Your task to perform on an android device: Open wifi settings Image 0: 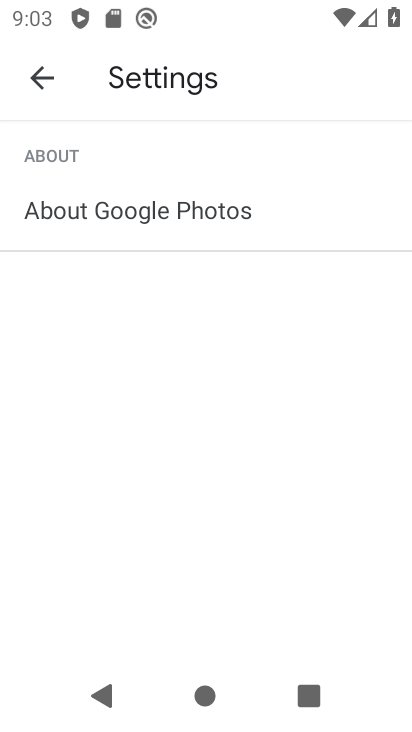
Step 0: drag from (210, 9) to (322, 722)
Your task to perform on an android device: Open wifi settings Image 1: 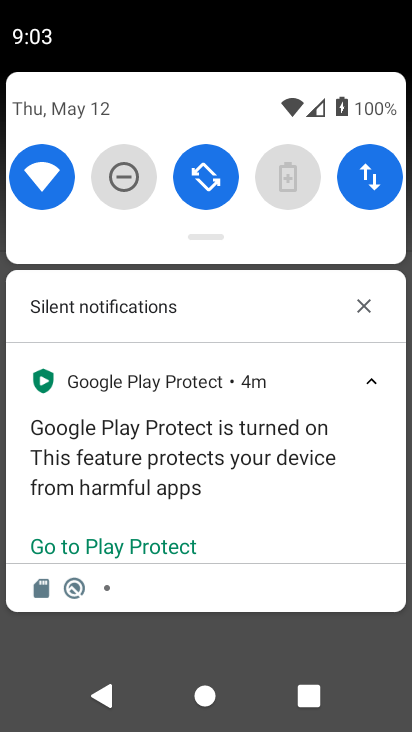
Step 1: click (45, 191)
Your task to perform on an android device: Open wifi settings Image 2: 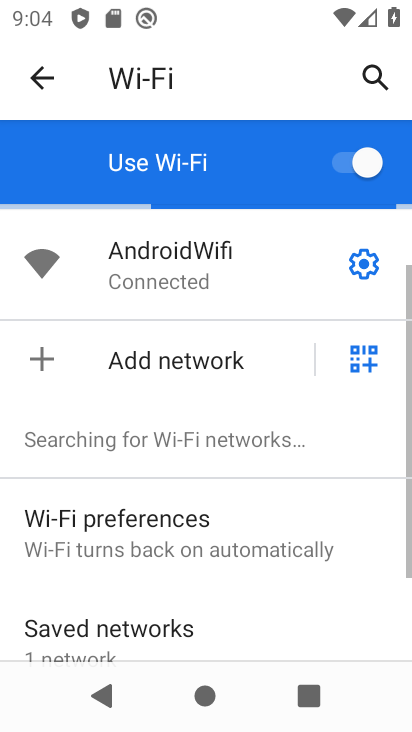
Step 2: task complete